Your task to perform on an android device: Check the news Image 0: 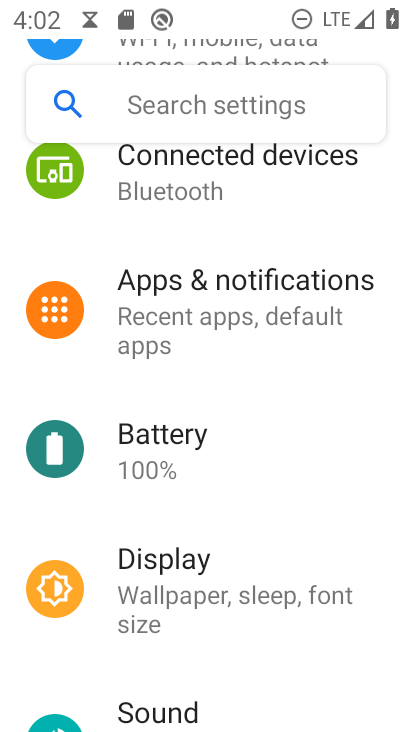
Step 0: press home button
Your task to perform on an android device: Check the news Image 1: 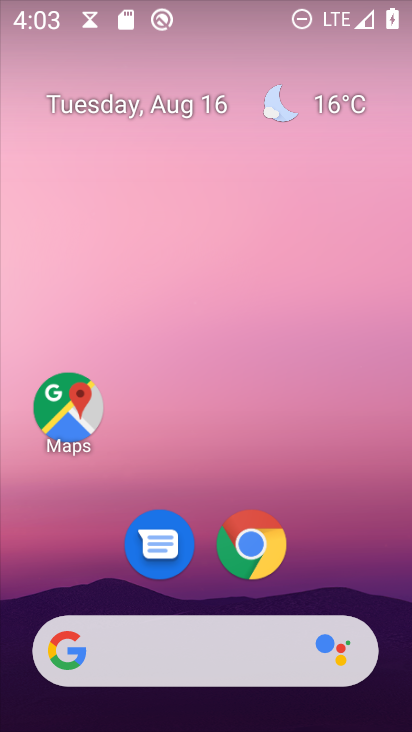
Step 1: drag from (202, 641) to (160, 170)
Your task to perform on an android device: Check the news Image 2: 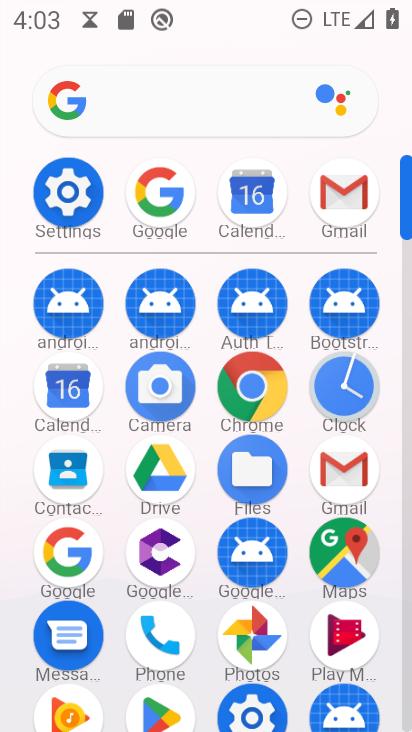
Step 2: click (69, 554)
Your task to perform on an android device: Check the news Image 3: 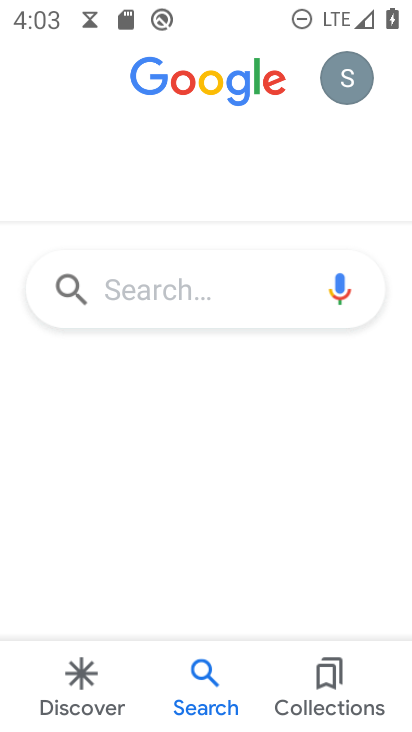
Step 3: click (233, 304)
Your task to perform on an android device: Check the news Image 4: 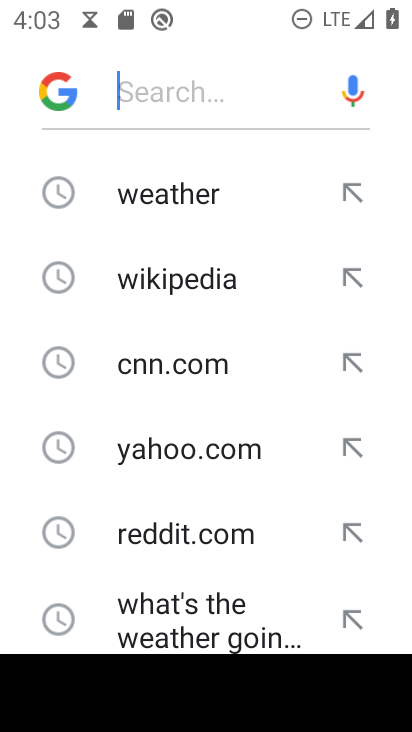
Step 4: type "news"
Your task to perform on an android device: Check the news Image 5: 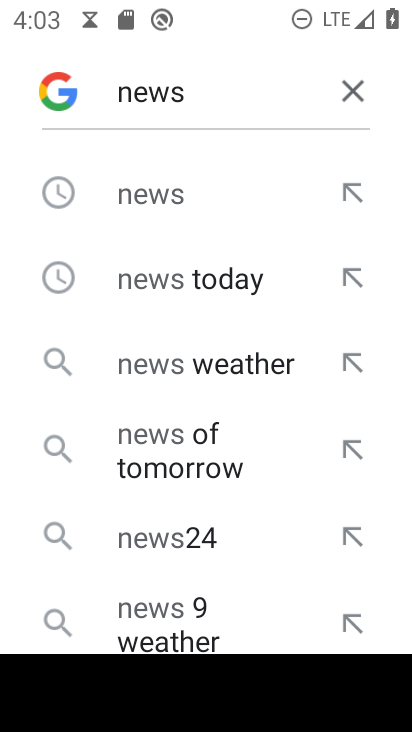
Step 5: click (165, 192)
Your task to perform on an android device: Check the news Image 6: 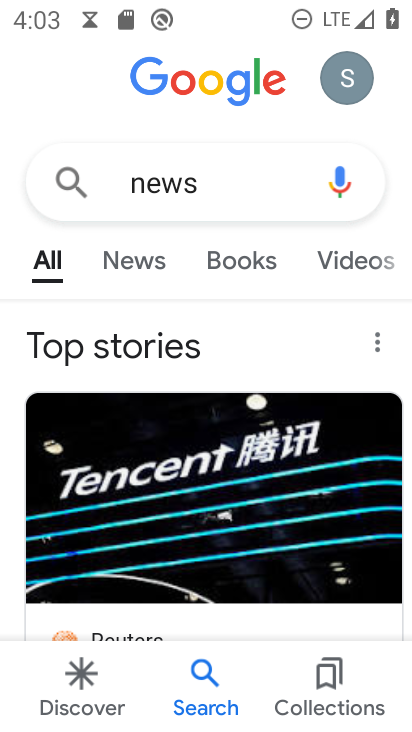
Step 6: drag from (149, 564) to (238, 357)
Your task to perform on an android device: Check the news Image 7: 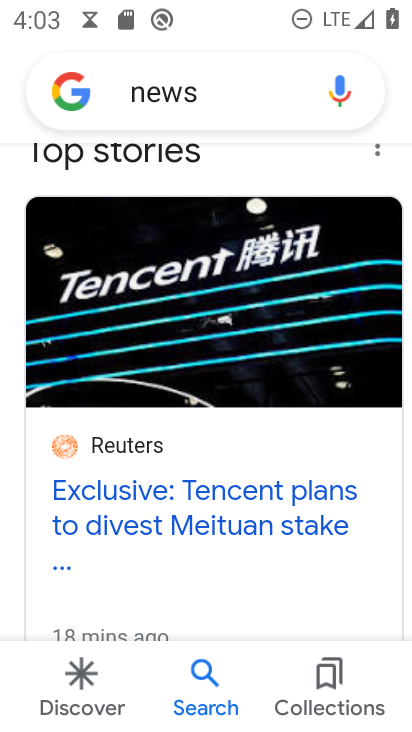
Step 7: click (200, 512)
Your task to perform on an android device: Check the news Image 8: 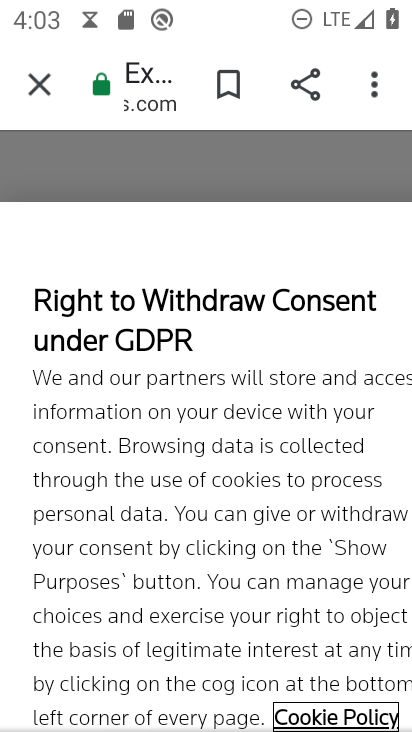
Step 8: task complete